Your task to perform on an android device: Open Reddit.com Image 0: 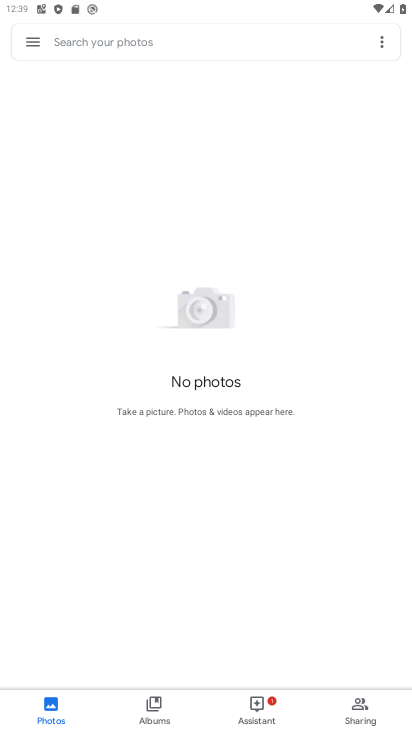
Step 0: press home button
Your task to perform on an android device: Open Reddit.com Image 1: 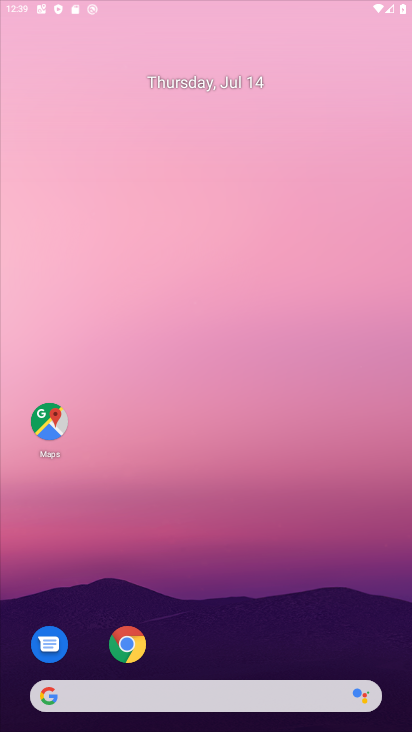
Step 1: drag from (204, 585) to (217, 25)
Your task to perform on an android device: Open Reddit.com Image 2: 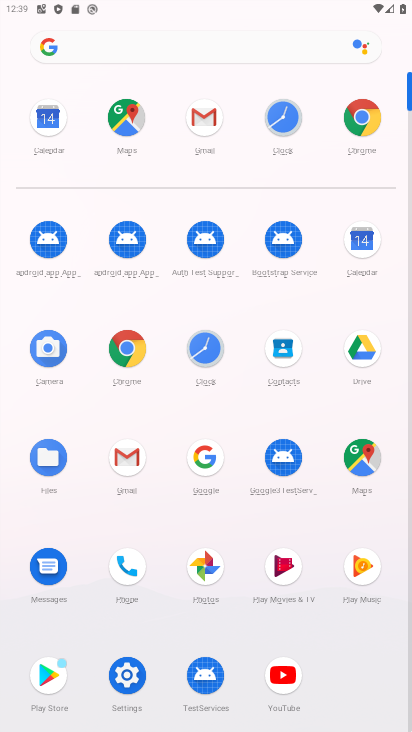
Step 2: click (144, 348)
Your task to perform on an android device: Open Reddit.com Image 3: 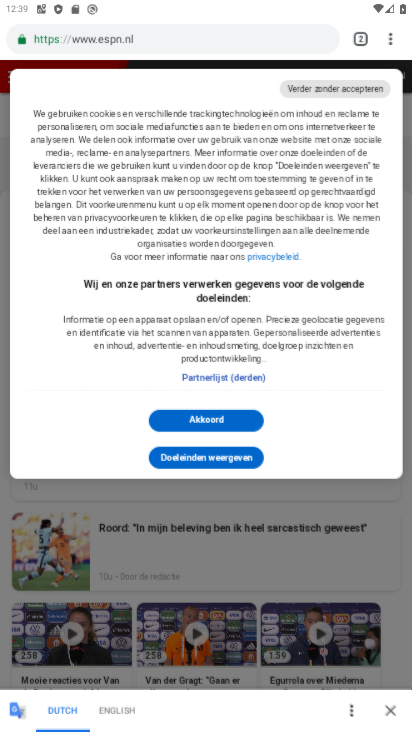
Step 3: click (194, 32)
Your task to perform on an android device: Open Reddit.com Image 4: 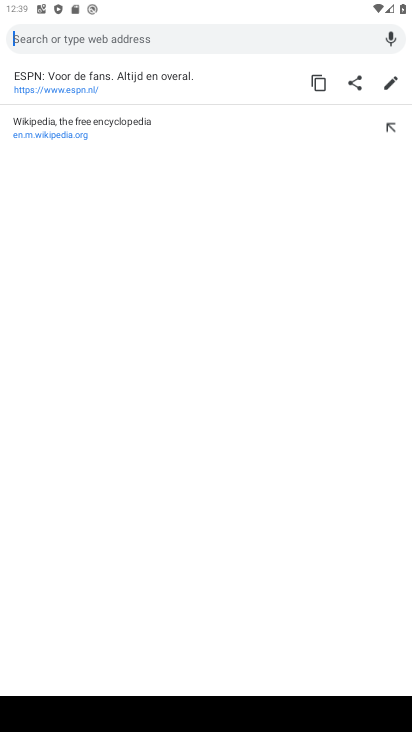
Step 4: type "reddit.com"
Your task to perform on an android device: Open Reddit.com Image 5: 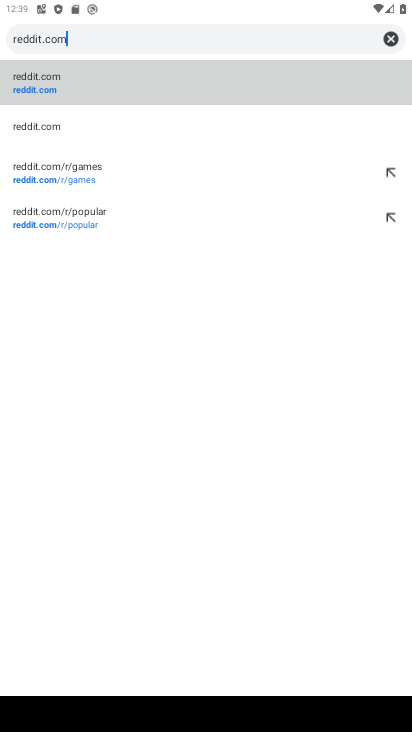
Step 5: click (71, 77)
Your task to perform on an android device: Open Reddit.com Image 6: 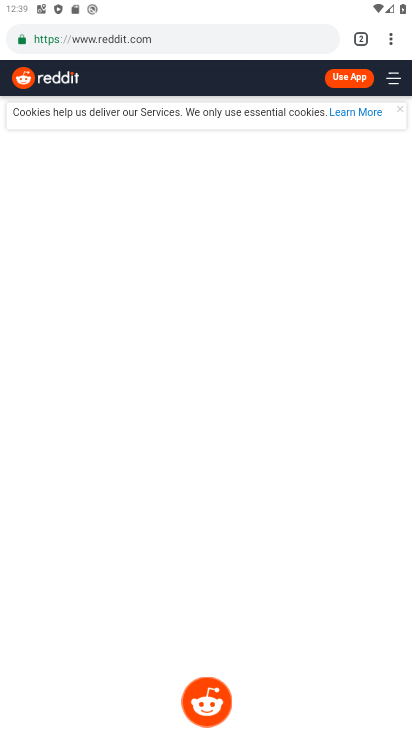
Step 6: task complete